Your task to perform on an android device: toggle improve location accuracy Image 0: 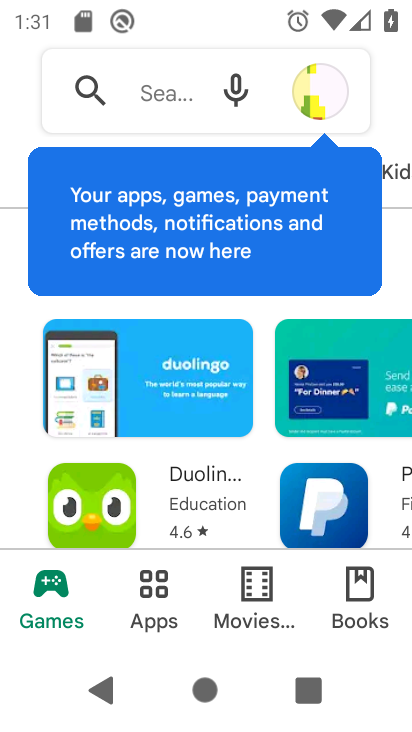
Step 0: press home button
Your task to perform on an android device: toggle improve location accuracy Image 1: 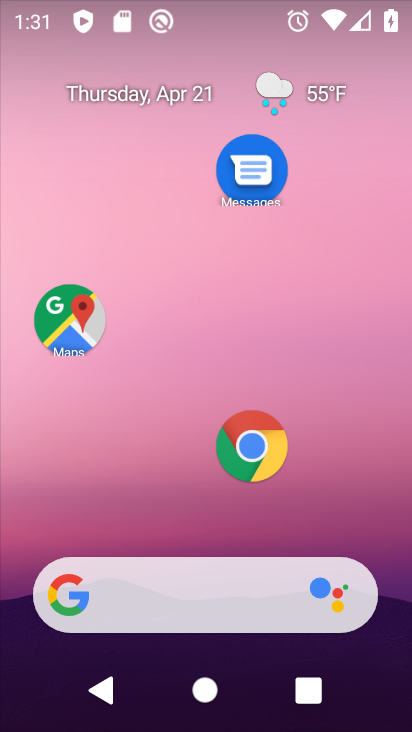
Step 1: drag from (170, 507) to (224, 49)
Your task to perform on an android device: toggle improve location accuracy Image 2: 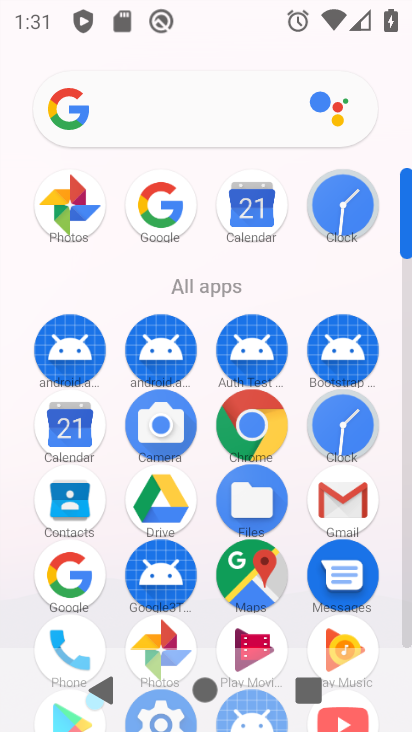
Step 2: drag from (299, 526) to (303, 253)
Your task to perform on an android device: toggle improve location accuracy Image 3: 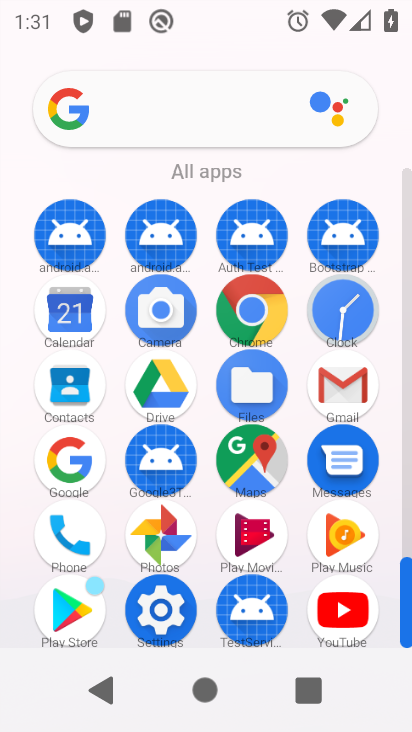
Step 3: click (163, 612)
Your task to perform on an android device: toggle improve location accuracy Image 4: 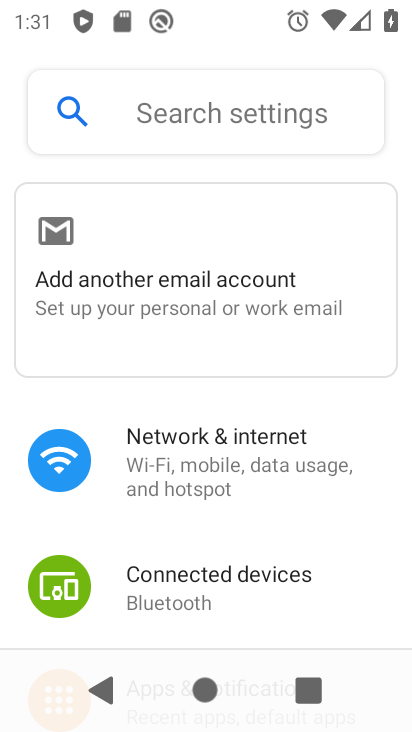
Step 4: drag from (198, 537) to (258, 337)
Your task to perform on an android device: toggle improve location accuracy Image 5: 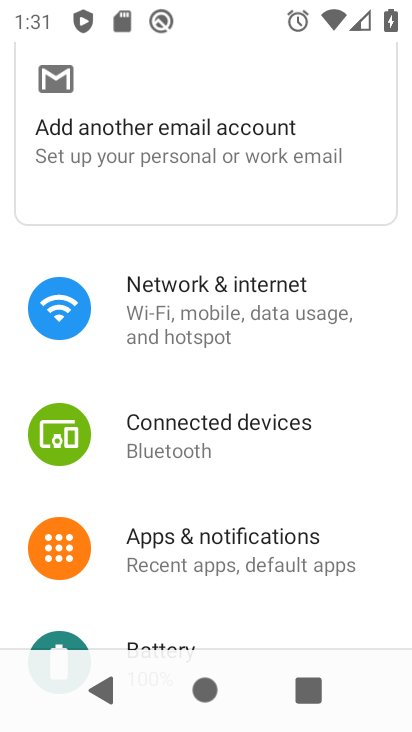
Step 5: drag from (228, 482) to (239, 305)
Your task to perform on an android device: toggle improve location accuracy Image 6: 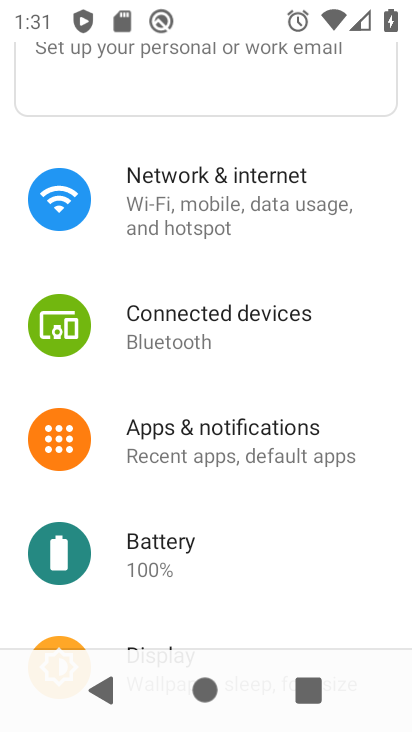
Step 6: drag from (208, 481) to (247, 284)
Your task to perform on an android device: toggle improve location accuracy Image 7: 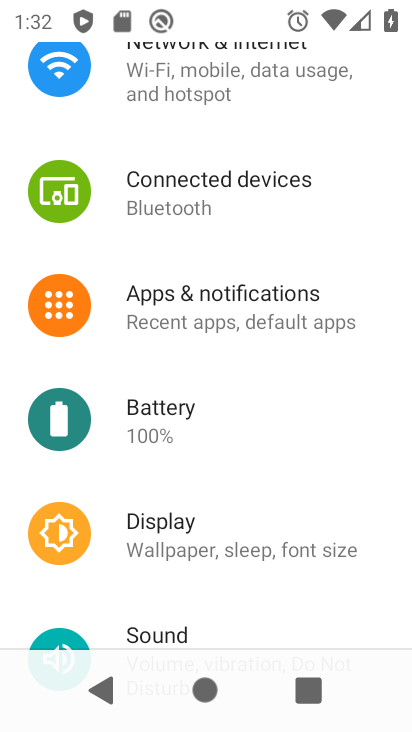
Step 7: drag from (226, 387) to (257, 216)
Your task to perform on an android device: toggle improve location accuracy Image 8: 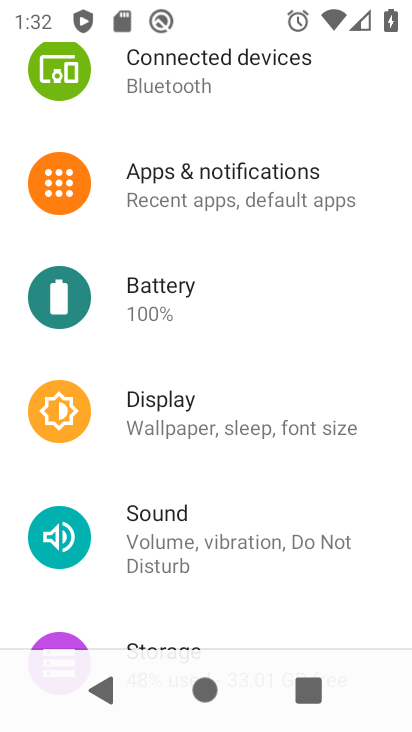
Step 8: drag from (240, 326) to (277, 198)
Your task to perform on an android device: toggle improve location accuracy Image 9: 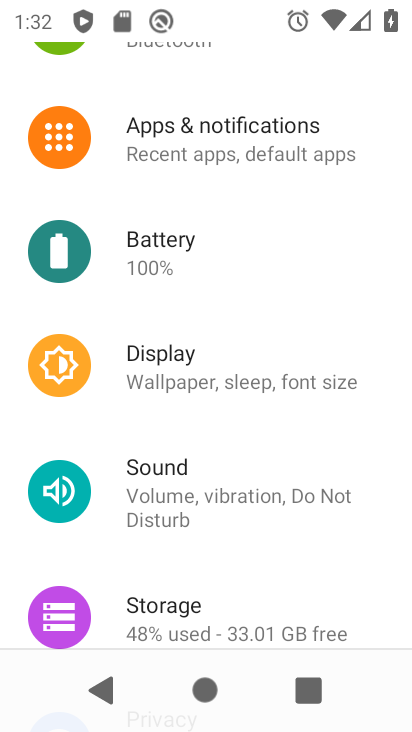
Step 9: drag from (223, 408) to (265, 273)
Your task to perform on an android device: toggle improve location accuracy Image 10: 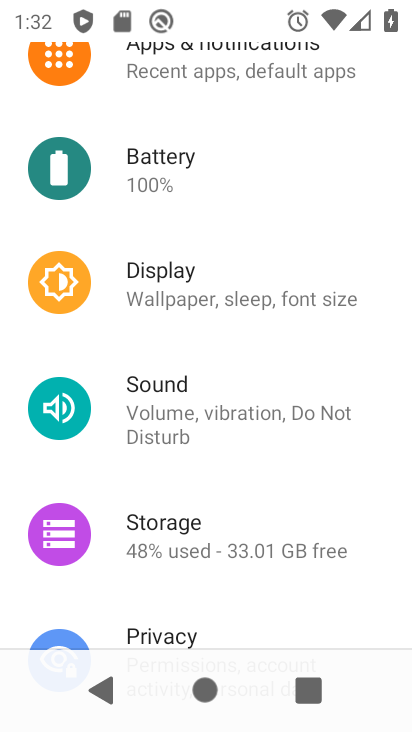
Step 10: drag from (231, 352) to (256, 229)
Your task to perform on an android device: toggle improve location accuracy Image 11: 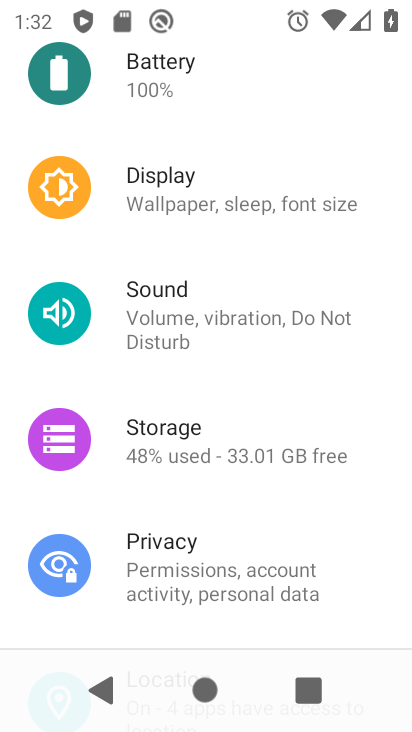
Step 11: drag from (221, 402) to (248, 250)
Your task to perform on an android device: toggle improve location accuracy Image 12: 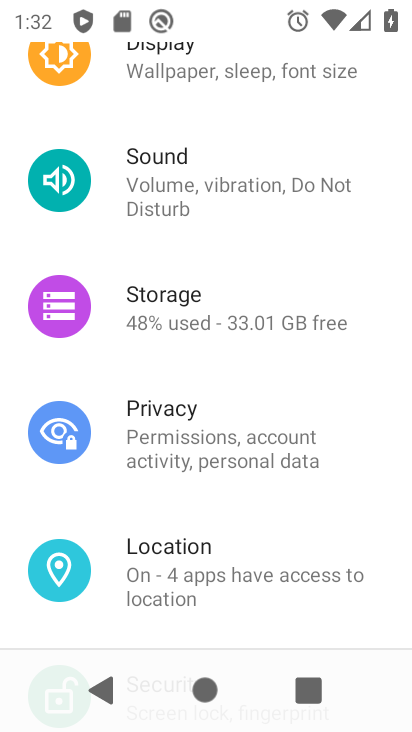
Step 12: drag from (218, 395) to (272, 198)
Your task to perform on an android device: toggle improve location accuracy Image 13: 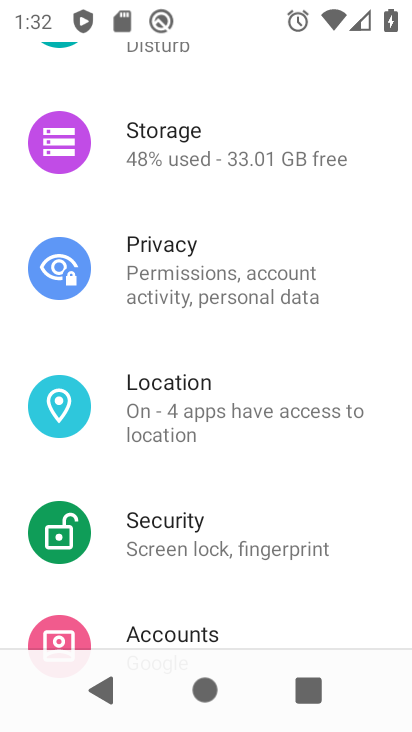
Step 13: click (162, 383)
Your task to perform on an android device: toggle improve location accuracy Image 14: 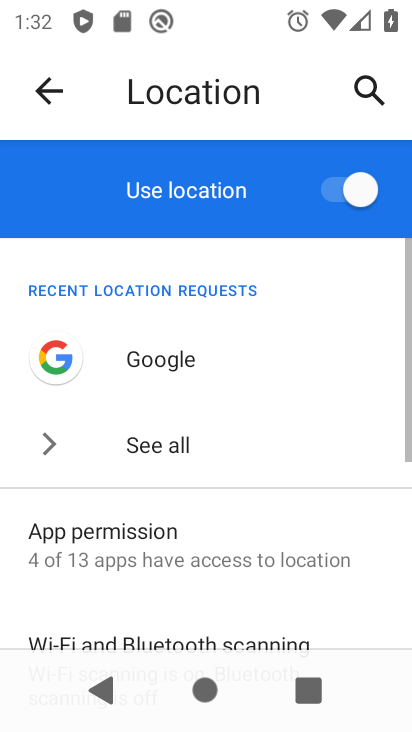
Step 14: drag from (191, 578) to (279, 330)
Your task to perform on an android device: toggle improve location accuracy Image 15: 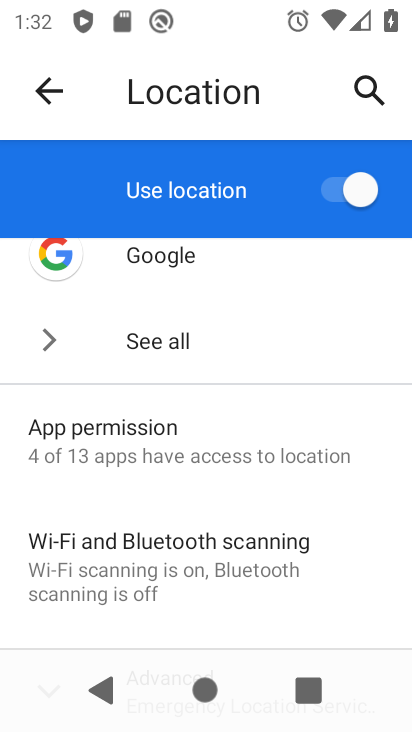
Step 15: drag from (188, 627) to (261, 361)
Your task to perform on an android device: toggle improve location accuracy Image 16: 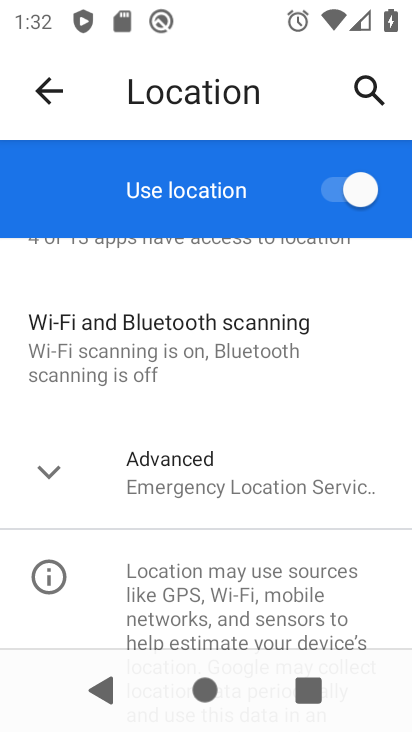
Step 16: click (202, 472)
Your task to perform on an android device: toggle improve location accuracy Image 17: 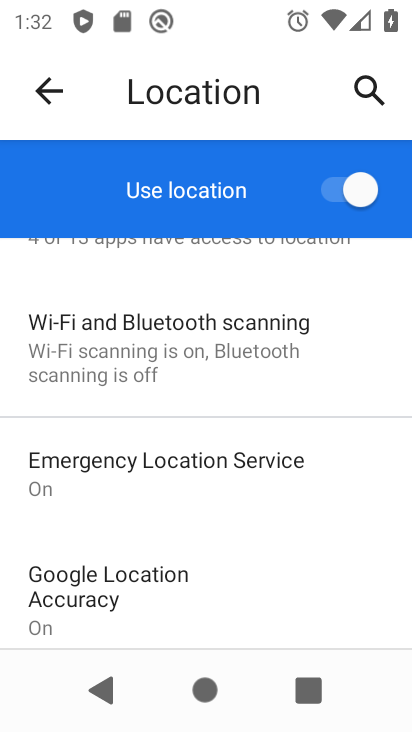
Step 17: click (148, 576)
Your task to perform on an android device: toggle improve location accuracy Image 18: 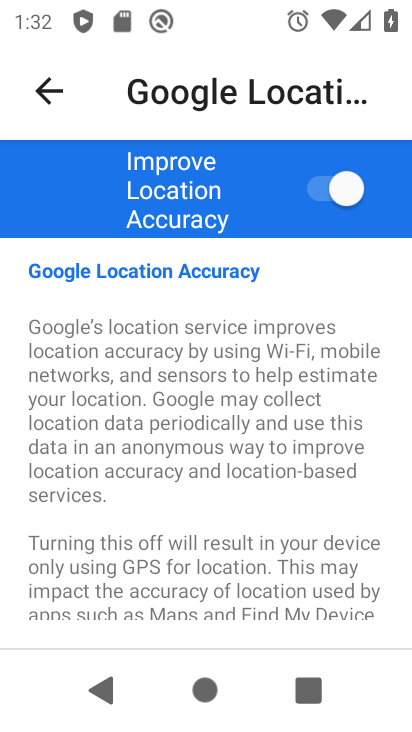
Step 18: click (337, 192)
Your task to perform on an android device: toggle improve location accuracy Image 19: 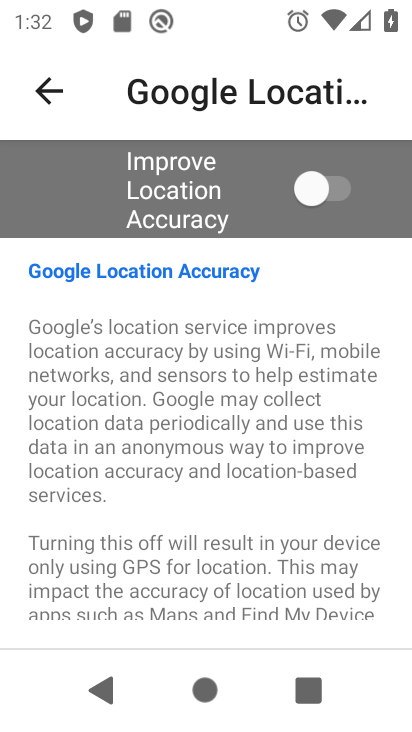
Step 19: task complete